Your task to perform on an android device: Open my contact list Image 0: 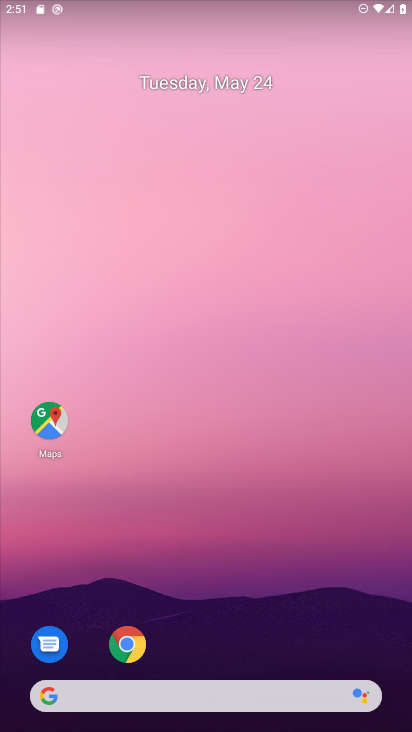
Step 0: drag from (306, 645) to (289, 299)
Your task to perform on an android device: Open my contact list Image 1: 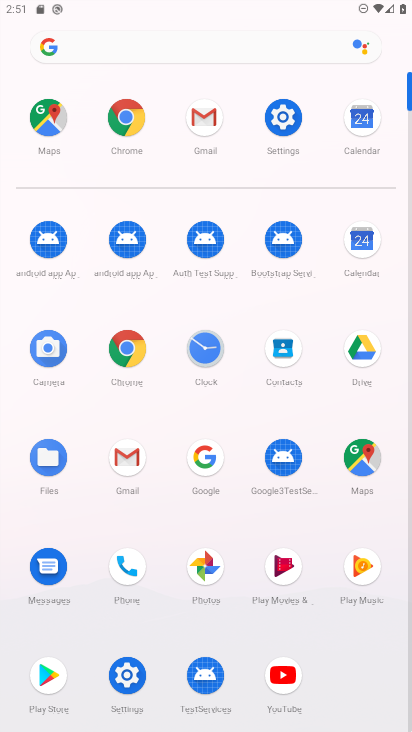
Step 1: click (288, 356)
Your task to perform on an android device: Open my contact list Image 2: 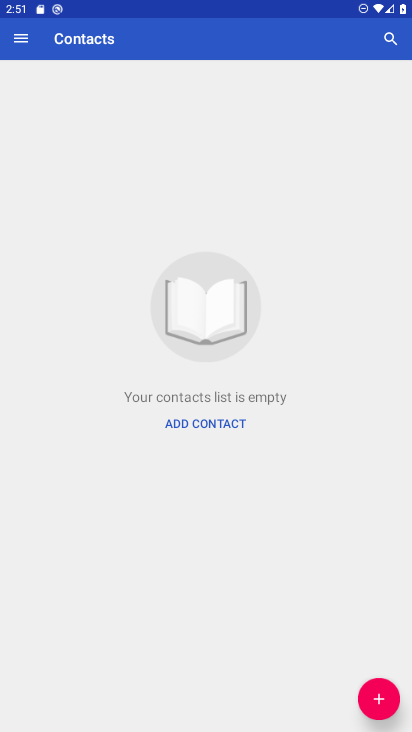
Step 2: click (22, 28)
Your task to perform on an android device: Open my contact list Image 3: 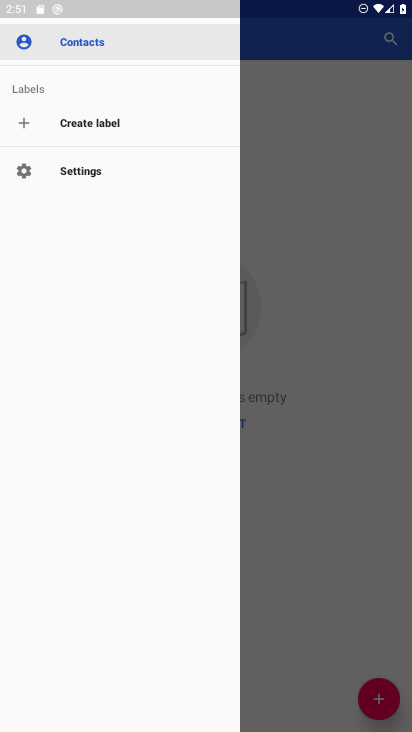
Step 3: click (288, 285)
Your task to perform on an android device: Open my contact list Image 4: 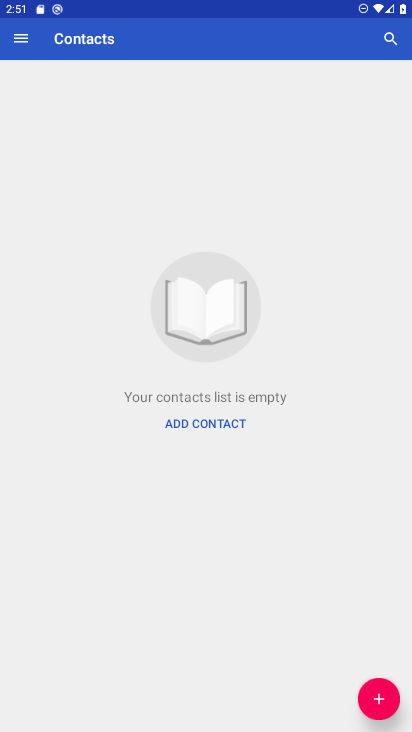
Step 4: task complete